Your task to perform on an android device: Open Yahoo.com Image 0: 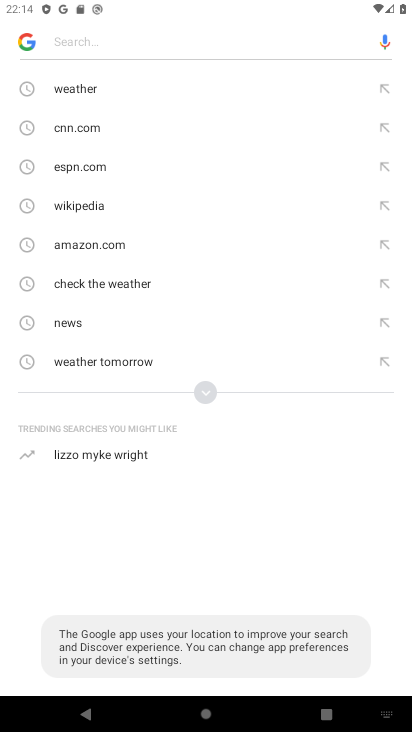
Step 0: press home button
Your task to perform on an android device: Open Yahoo.com Image 1: 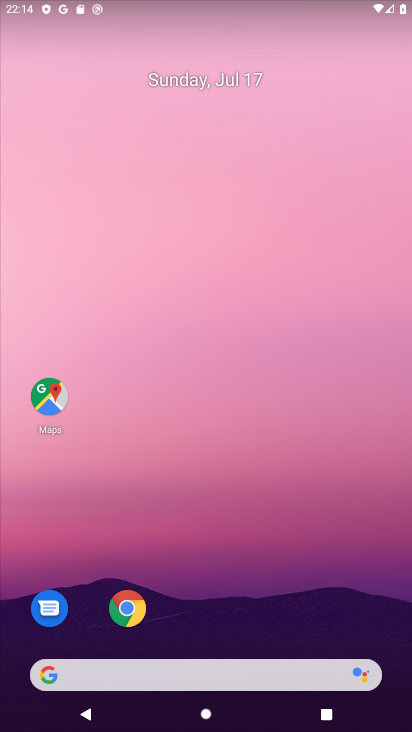
Step 1: click (149, 615)
Your task to perform on an android device: Open Yahoo.com Image 2: 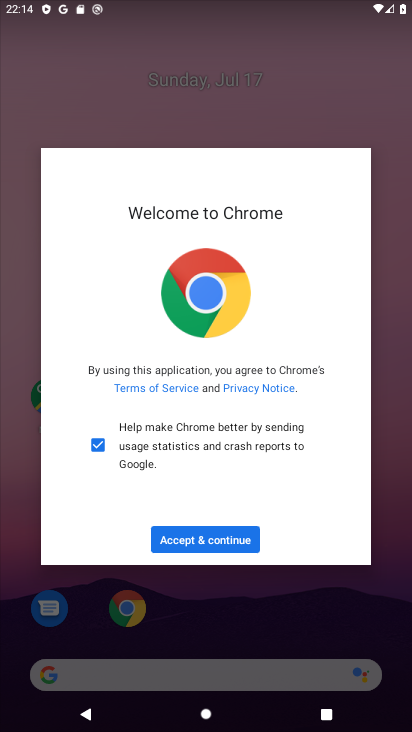
Step 2: click (207, 546)
Your task to perform on an android device: Open Yahoo.com Image 3: 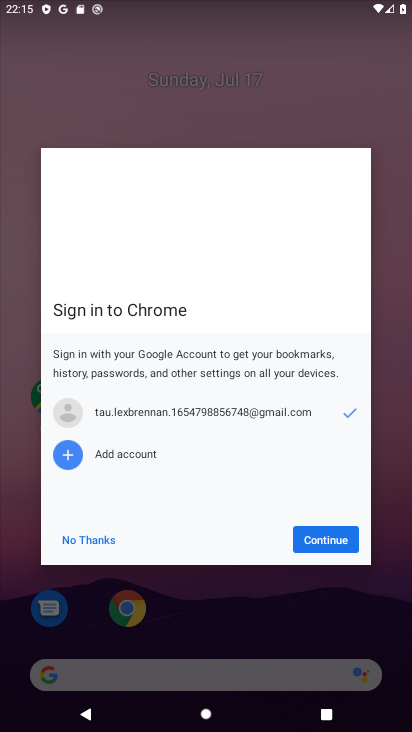
Step 3: click (344, 548)
Your task to perform on an android device: Open Yahoo.com Image 4: 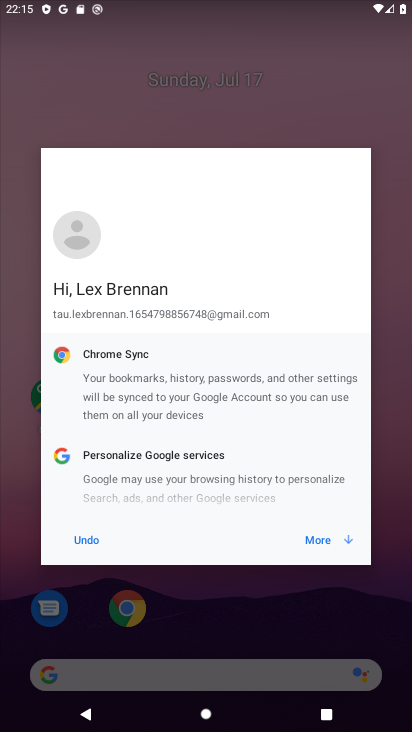
Step 4: click (344, 548)
Your task to perform on an android device: Open Yahoo.com Image 5: 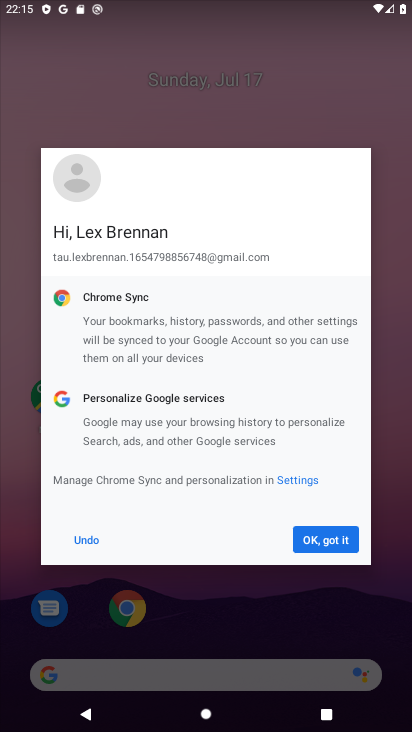
Step 5: click (344, 548)
Your task to perform on an android device: Open Yahoo.com Image 6: 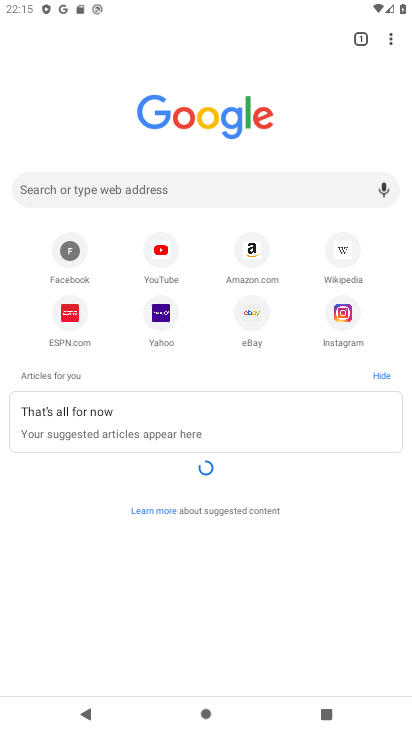
Step 6: click (164, 321)
Your task to perform on an android device: Open Yahoo.com Image 7: 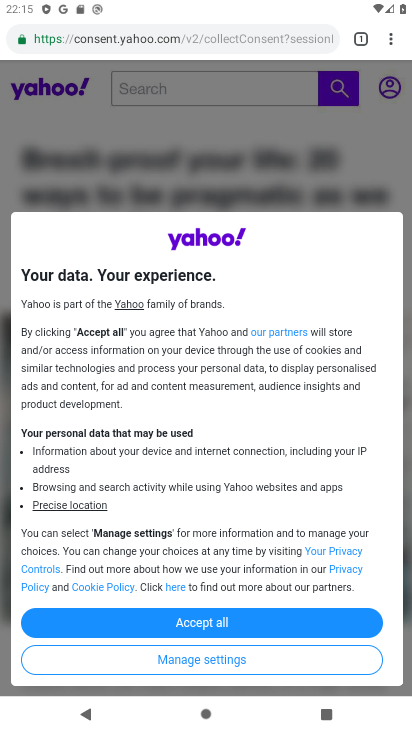
Step 7: task complete